Your task to perform on an android device: manage bookmarks in the chrome app Image 0: 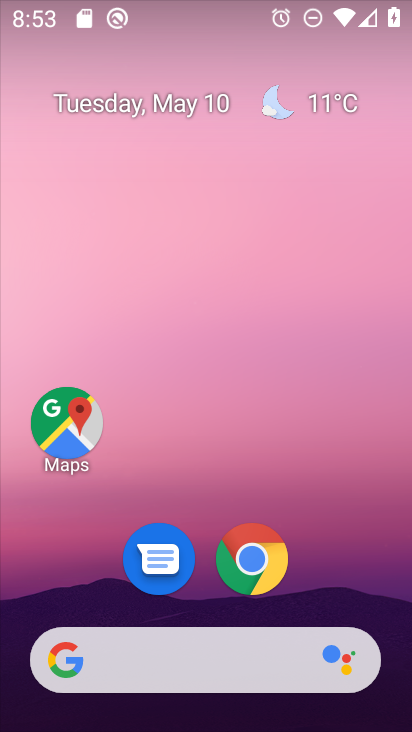
Step 0: click (263, 564)
Your task to perform on an android device: manage bookmarks in the chrome app Image 1: 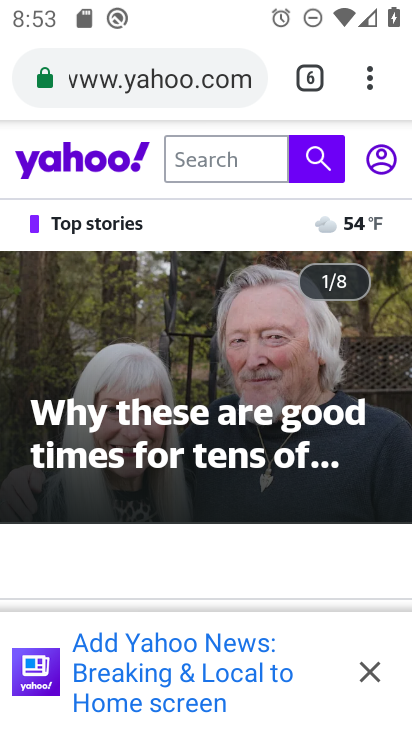
Step 1: click (373, 87)
Your task to perform on an android device: manage bookmarks in the chrome app Image 2: 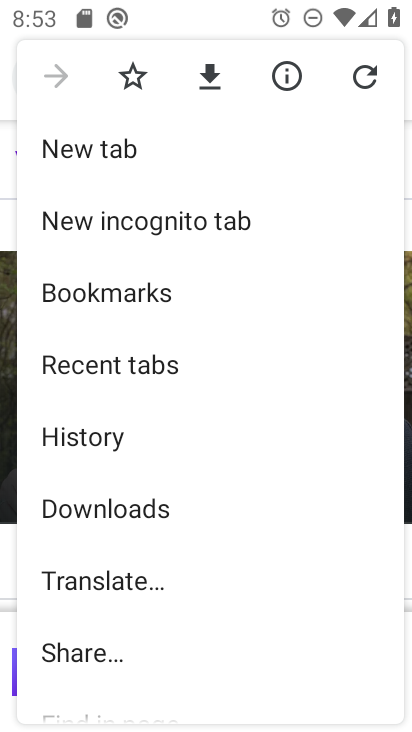
Step 2: click (135, 294)
Your task to perform on an android device: manage bookmarks in the chrome app Image 3: 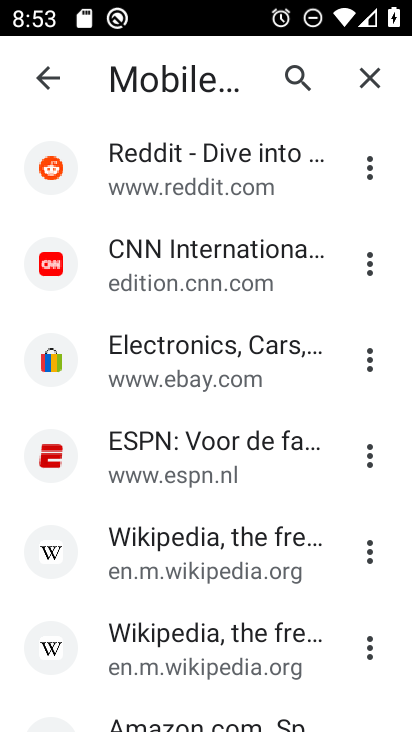
Step 3: click (370, 176)
Your task to perform on an android device: manage bookmarks in the chrome app Image 4: 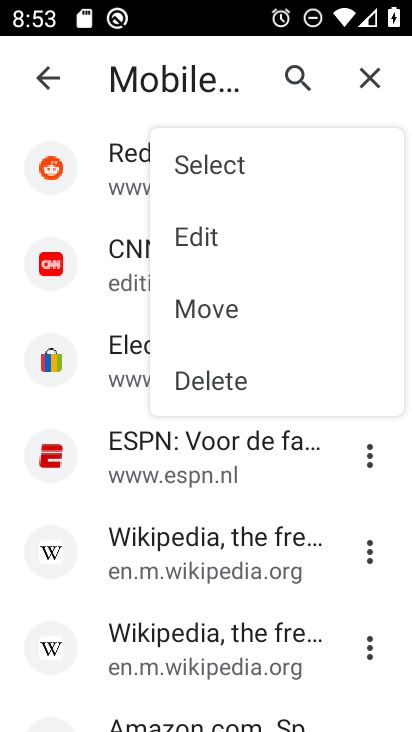
Step 4: click (203, 232)
Your task to perform on an android device: manage bookmarks in the chrome app Image 5: 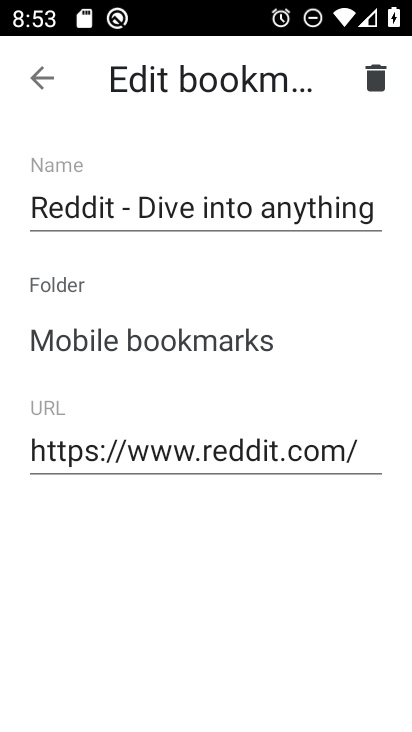
Step 5: click (201, 204)
Your task to perform on an android device: manage bookmarks in the chrome app Image 6: 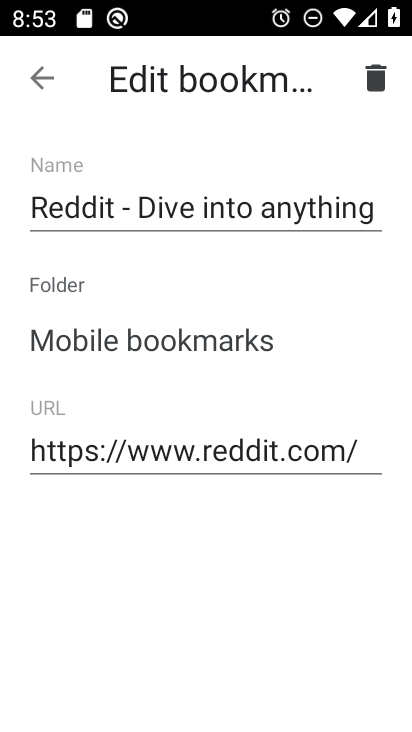
Step 6: click (201, 204)
Your task to perform on an android device: manage bookmarks in the chrome app Image 7: 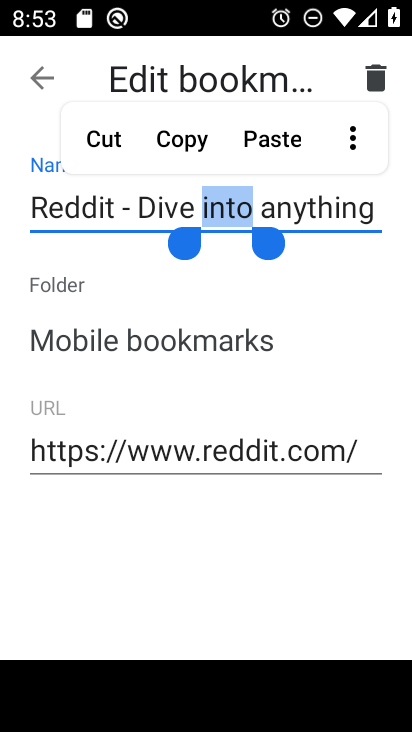
Step 7: drag from (185, 245) to (17, 232)
Your task to perform on an android device: manage bookmarks in the chrome app Image 8: 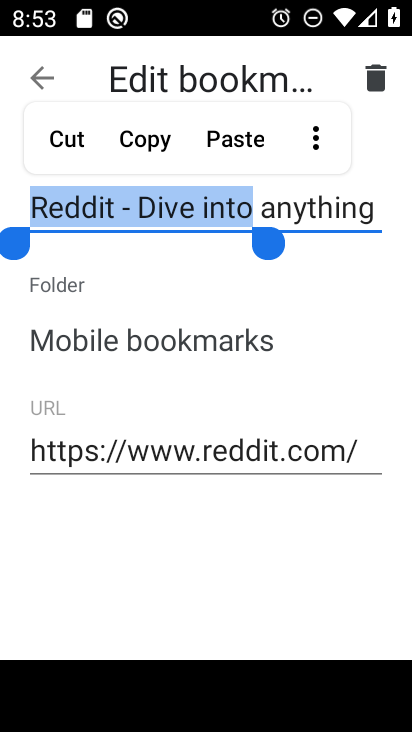
Step 8: drag from (263, 241) to (400, 238)
Your task to perform on an android device: manage bookmarks in the chrome app Image 9: 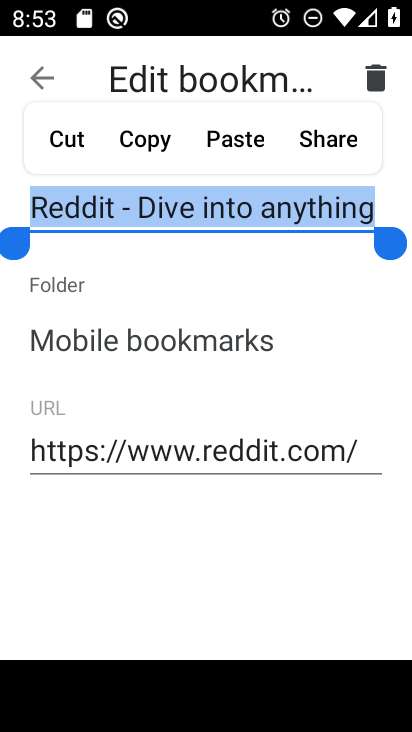
Step 9: click (64, 137)
Your task to perform on an android device: manage bookmarks in the chrome app Image 10: 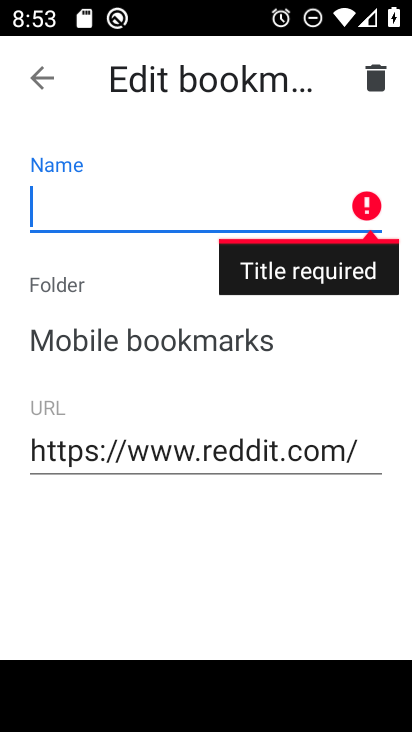
Step 10: click (115, 216)
Your task to perform on an android device: manage bookmarks in the chrome app Image 11: 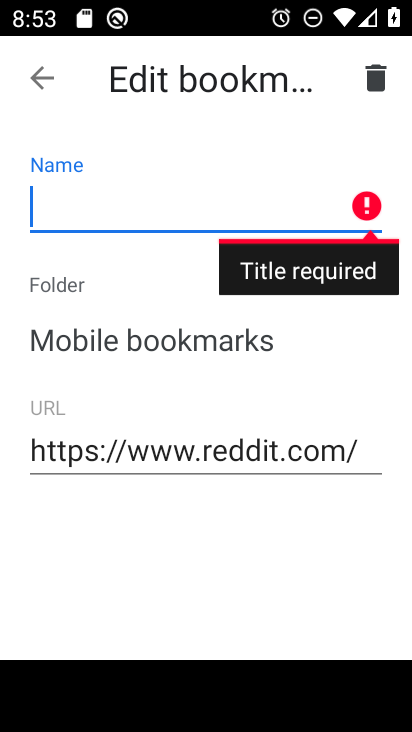
Step 11: type "ddit"
Your task to perform on an android device: manage bookmarks in the chrome app Image 12: 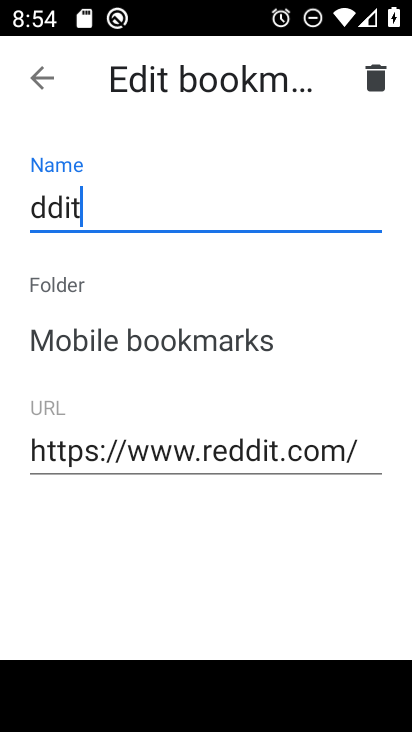
Step 12: click (46, 65)
Your task to perform on an android device: manage bookmarks in the chrome app Image 13: 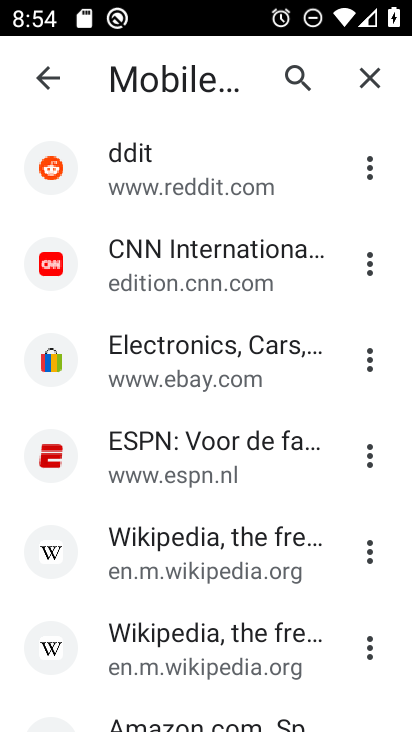
Step 13: task complete